Your task to perform on an android device: Open settings on Google Maps Image 0: 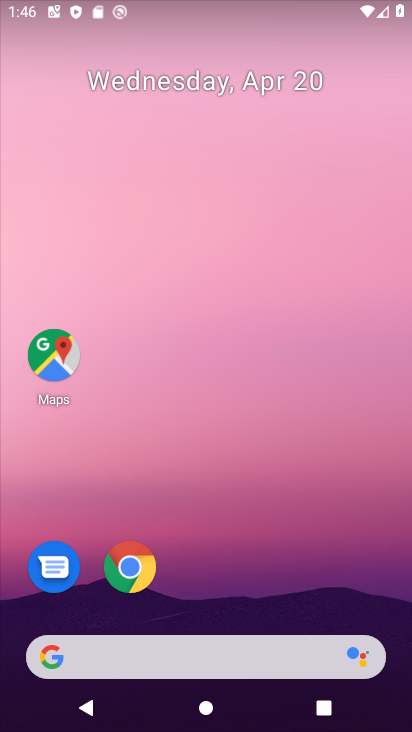
Step 0: click (55, 367)
Your task to perform on an android device: Open settings on Google Maps Image 1: 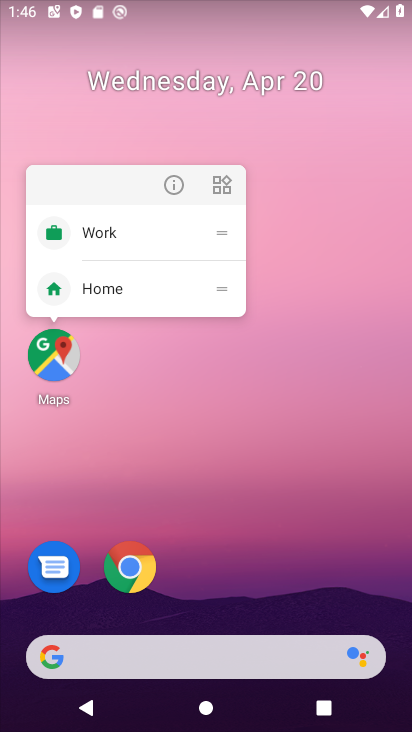
Step 1: click (55, 359)
Your task to perform on an android device: Open settings on Google Maps Image 2: 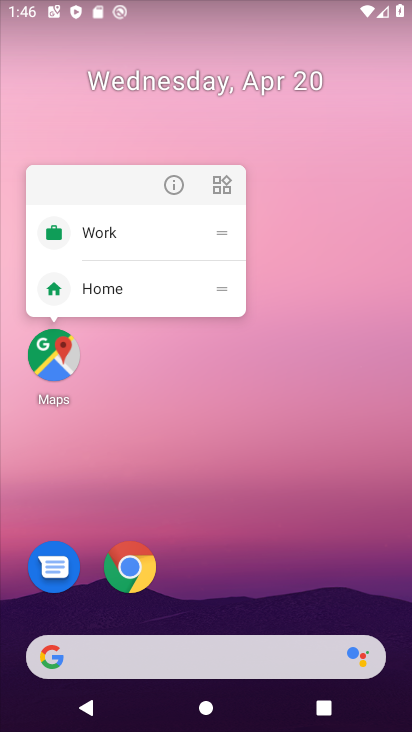
Step 2: click (56, 349)
Your task to perform on an android device: Open settings on Google Maps Image 3: 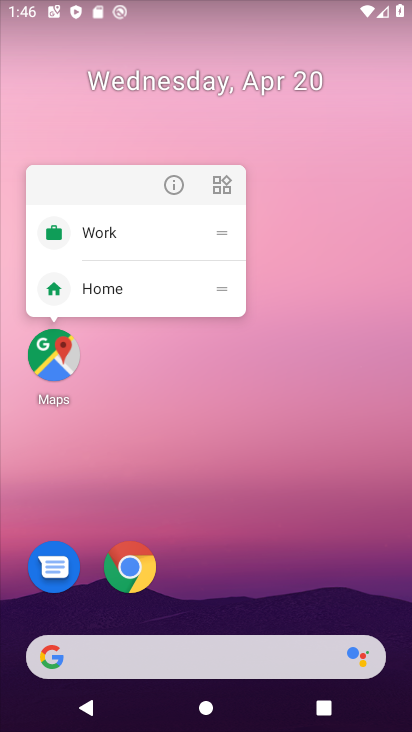
Step 3: click (49, 356)
Your task to perform on an android device: Open settings on Google Maps Image 4: 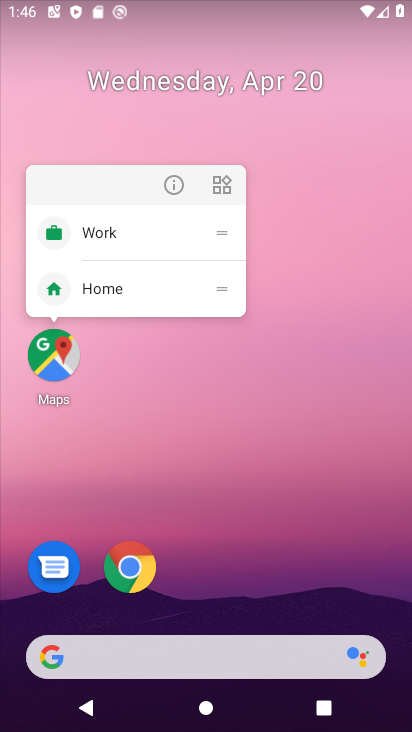
Step 4: click (49, 356)
Your task to perform on an android device: Open settings on Google Maps Image 5: 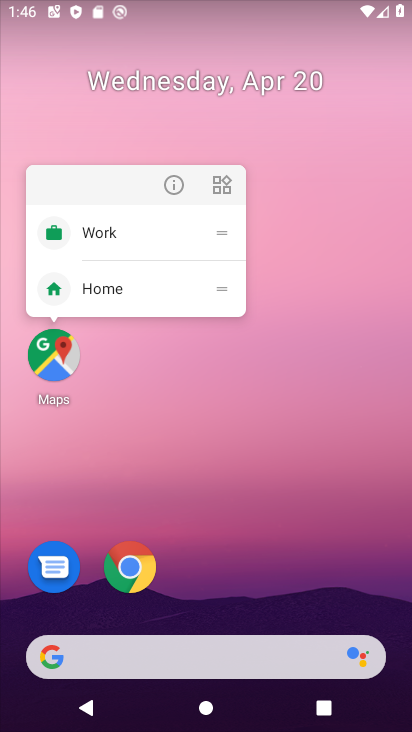
Step 5: click (54, 355)
Your task to perform on an android device: Open settings on Google Maps Image 6: 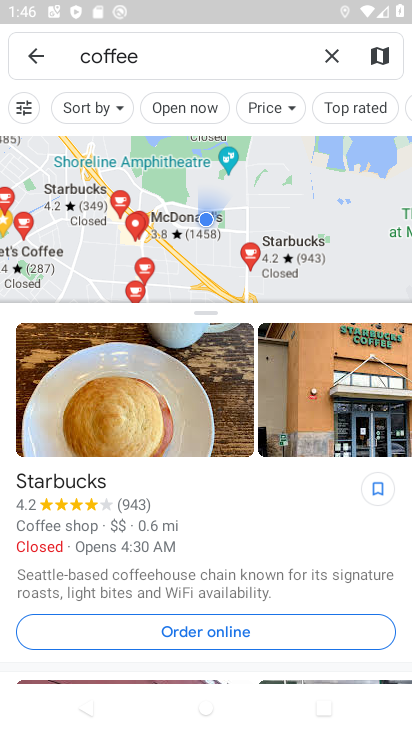
Step 6: press back button
Your task to perform on an android device: Open settings on Google Maps Image 7: 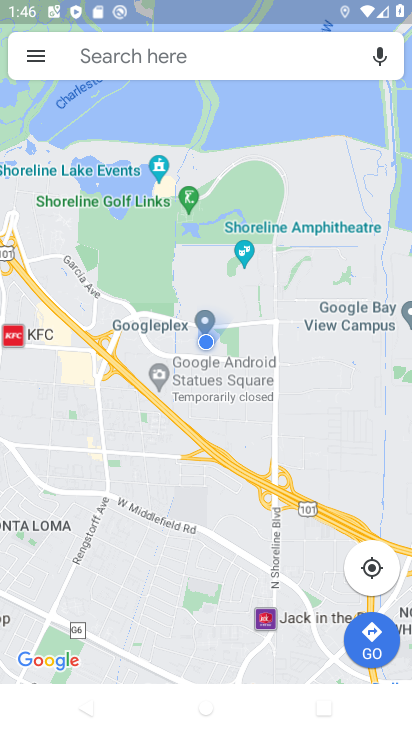
Step 7: click (25, 60)
Your task to perform on an android device: Open settings on Google Maps Image 8: 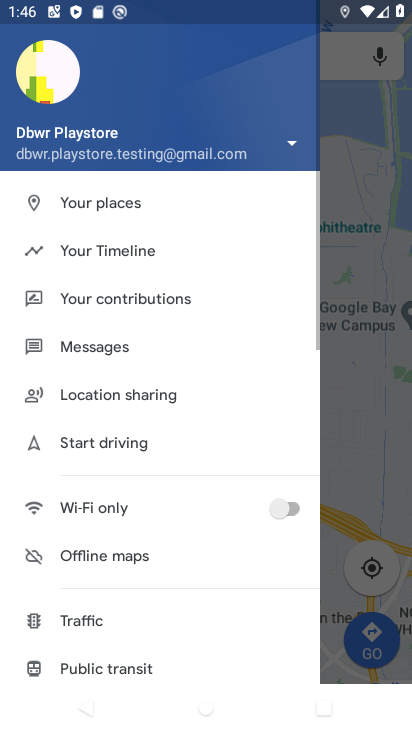
Step 8: drag from (156, 640) to (131, 230)
Your task to perform on an android device: Open settings on Google Maps Image 9: 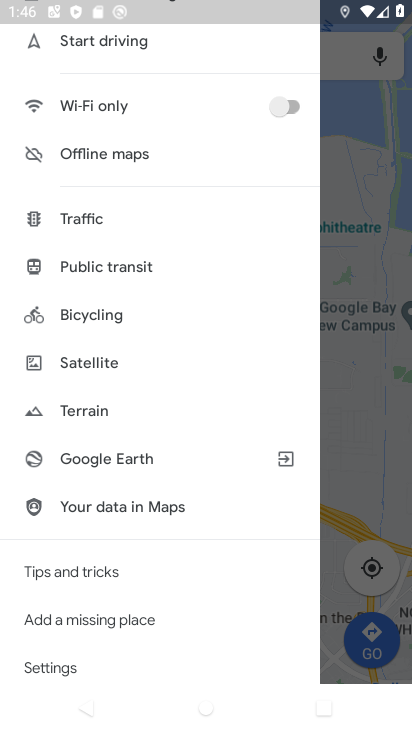
Step 9: click (61, 664)
Your task to perform on an android device: Open settings on Google Maps Image 10: 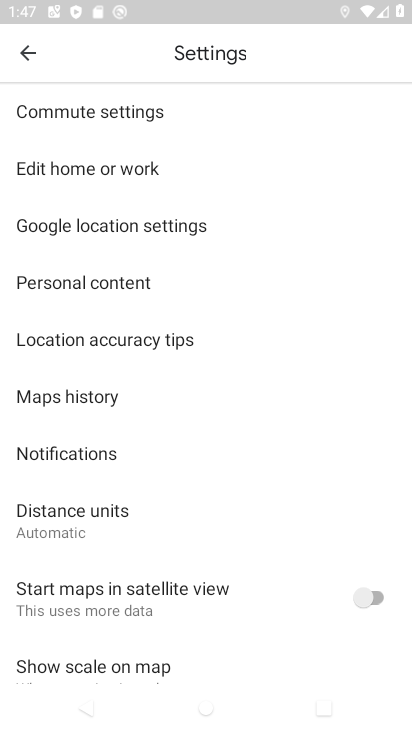
Step 10: task complete